Your task to perform on an android device: open app "Move to iOS" (install if not already installed) Image 0: 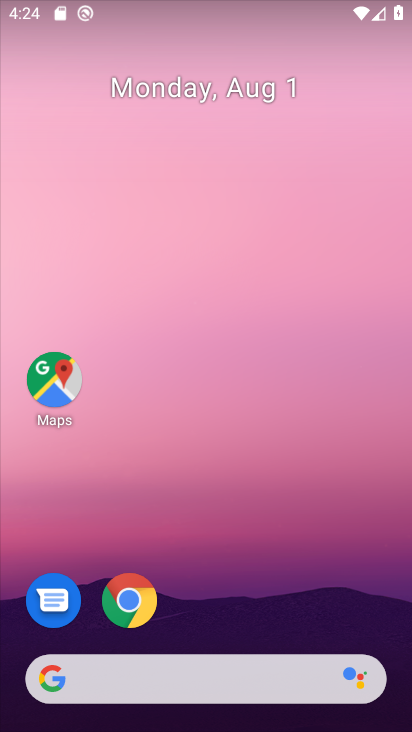
Step 0: drag from (308, 601) to (333, 52)
Your task to perform on an android device: open app "Move to iOS" (install if not already installed) Image 1: 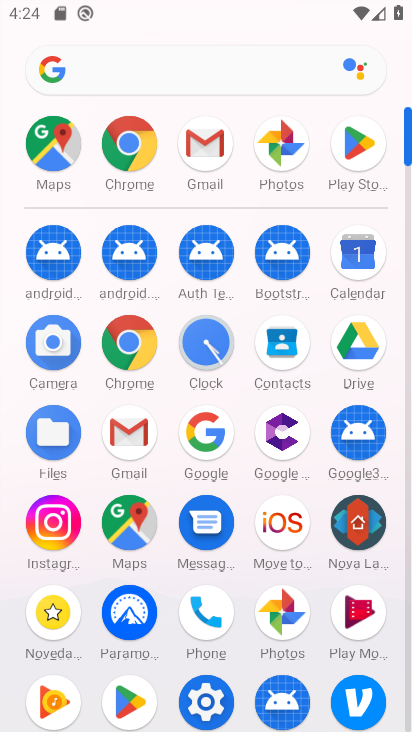
Step 1: click (361, 151)
Your task to perform on an android device: open app "Move to iOS" (install if not already installed) Image 2: 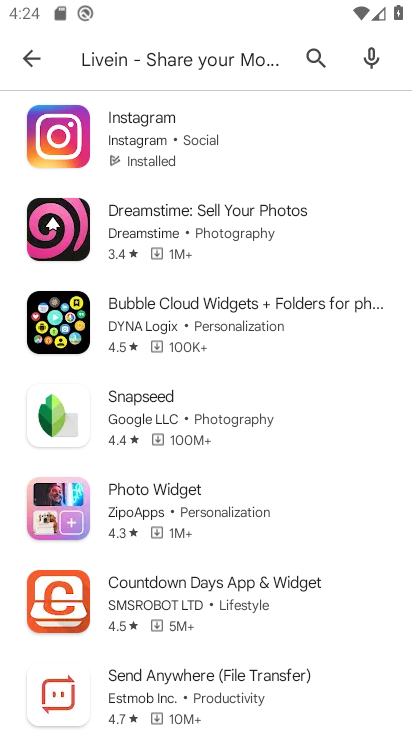
Step 2: click (272, 63)
Your task to perform on an android device: open app "Move to iOS" (install if not already installed) Image 3: 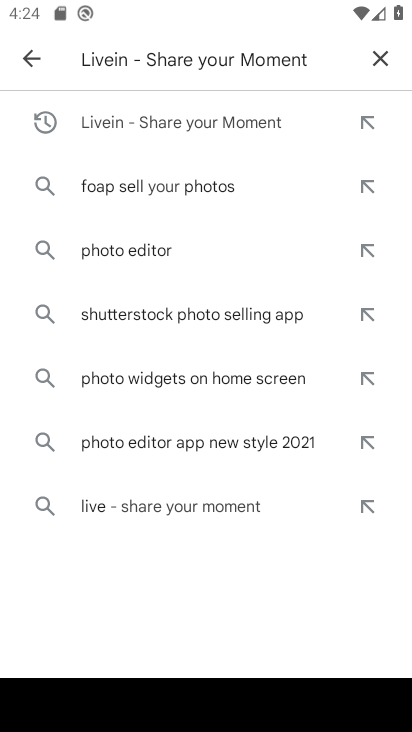
Step 3: click (382, 50)
Your task to perform on an android device: open app "Move to iOS" (install if not already installed) Image 4: 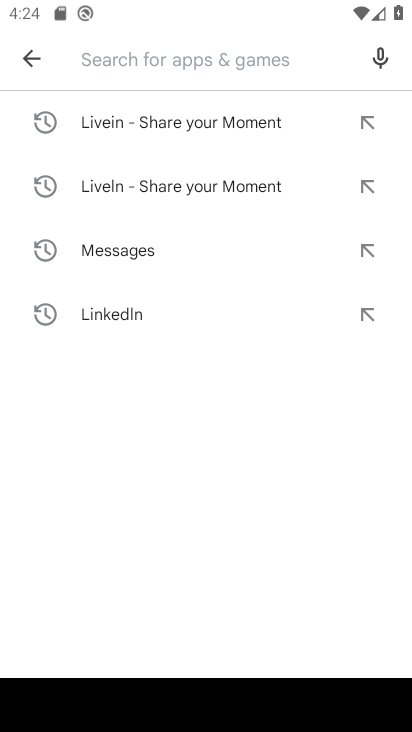
Step 4: type "Move to iOS"
Your task to perform on an android device: open app "Move to iOS" (install if not already installed) Image 5: 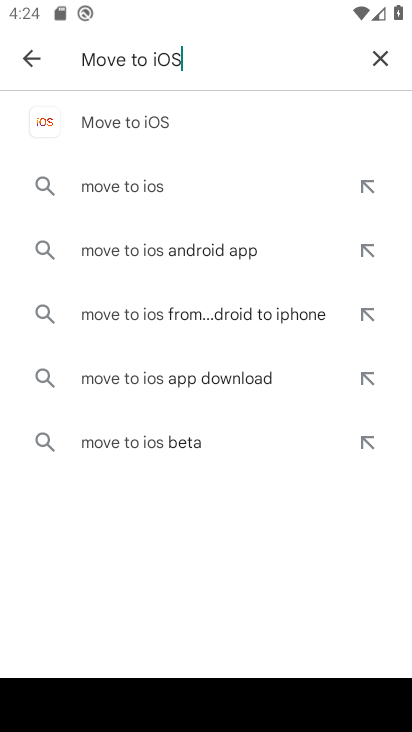
Step 5: press enter
Your task to perform on an android device: open app "Move to iOS" (install if not already installed) Image 6: 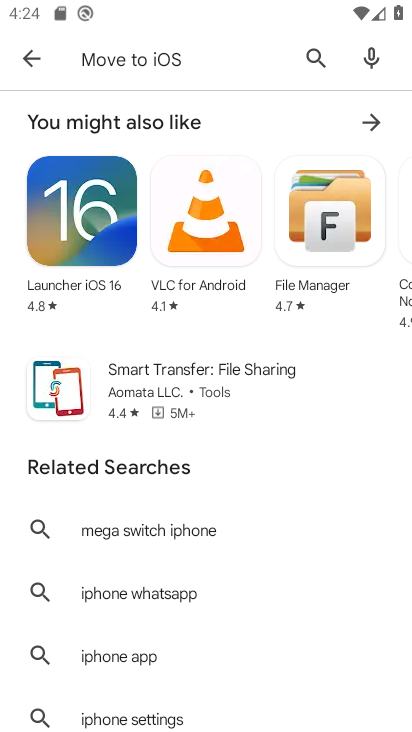
Step 6: task complete